Your task to perform on an android device: turn on location history Image 0: 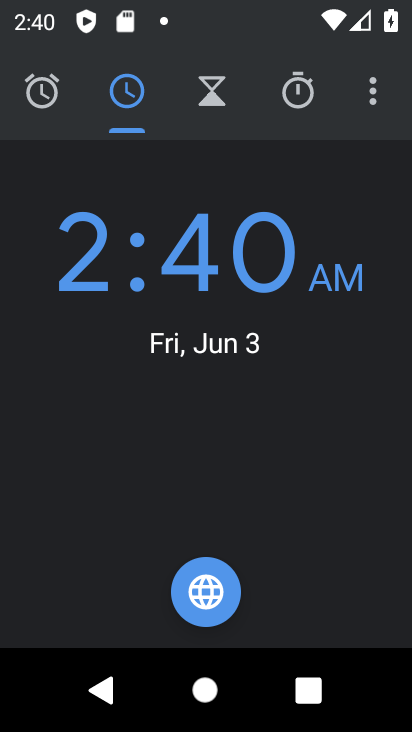
Step 0: press home button
Your task to perform on an android device: turn on location history Image 1: 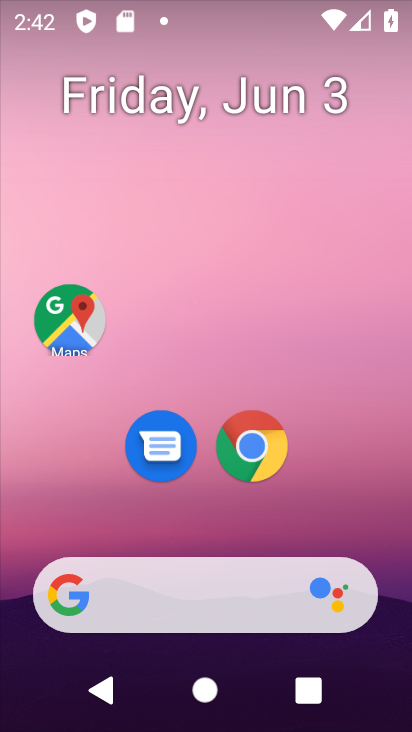
Step 1: drag from (358, 519) to (334, 128)
Your task to perform on an android device: turn on location history Image 2: 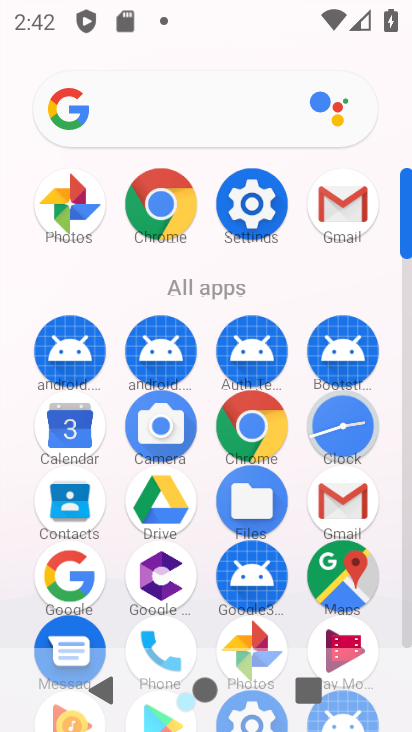
Step 2: click (260, 204)
Your task to perform on an android device: turn on location history Image 3: 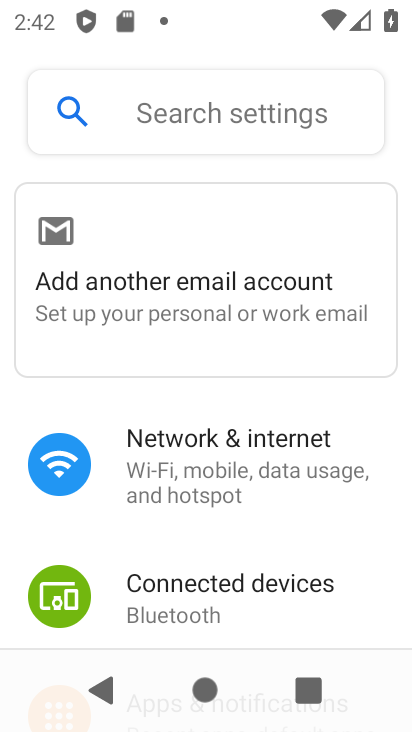
Step 3: drag from (186, 580) to (151, 113)
Your task to perform on an android device: turn on location history Image 4: 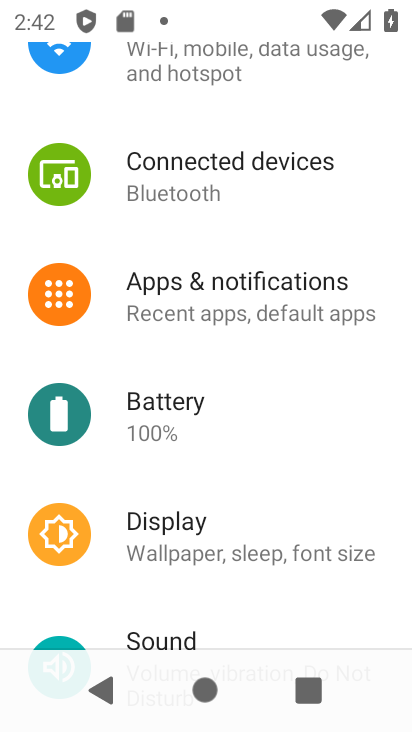
Step 4: drag from (159, 477) to (178, 203)
Your task to perform on an android device: turn on location history Image 5: 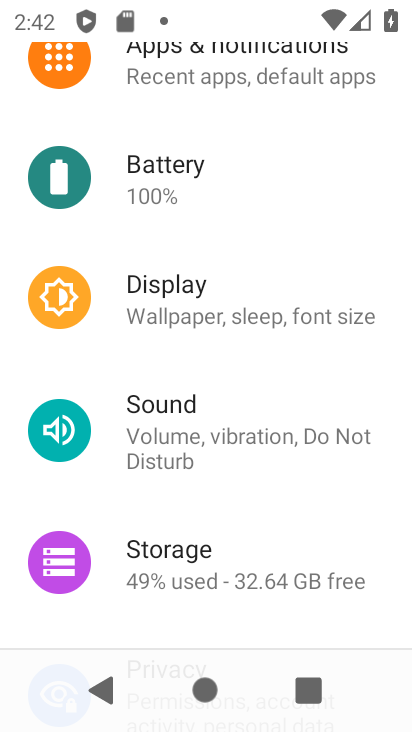
Step 5: drag from (184, 513) to (186, 356)
Your task to perform on an android device: turn on location history Image 6: 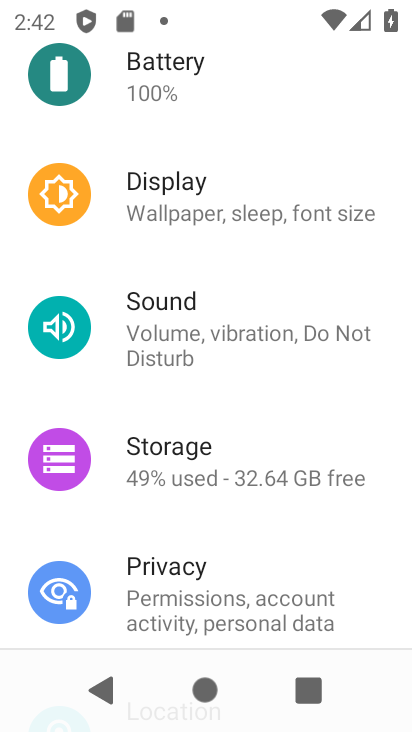
Step 6: drag from (152, 554) to (170, 258)
Your task to perform on an android device: turn on location history Image 7: 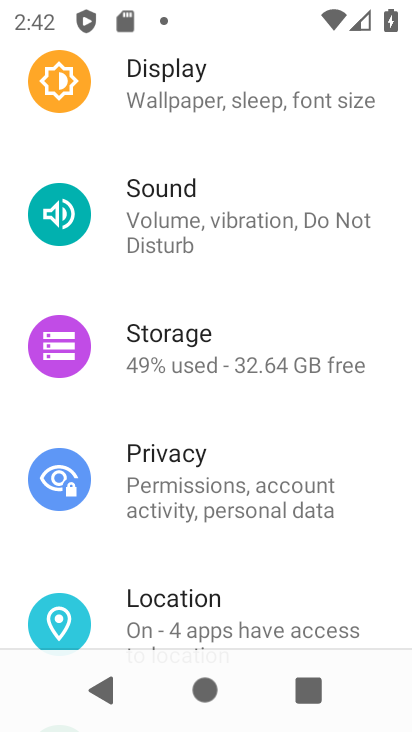
Step 7: click (170, 258)
Your task to perform on an android device: turn on location history Image 8: 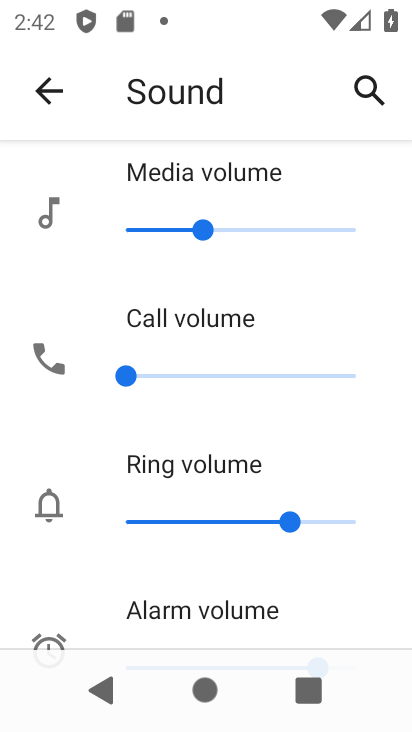
Step 8: task complete